Your task to perform on an android device: turn off translation in the chrome app Image 0: 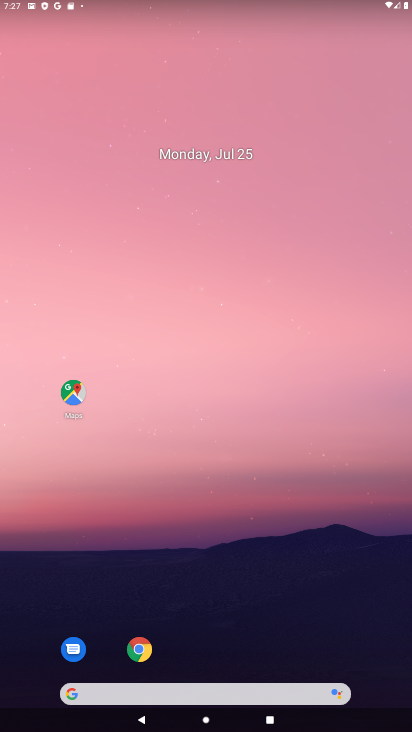
Step 0: click (138, 643)
Your task to perform on an android device: turn off translation in the chrome app Image 1: 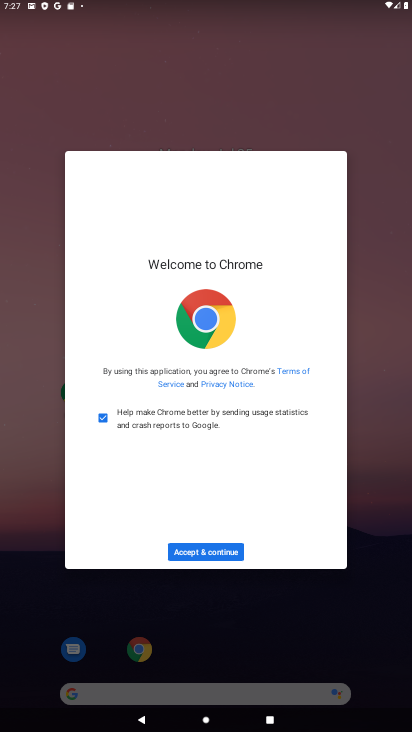
Step 1: click (221, 557)
Your task to perform on an android device: turn off translation in the chrome app Image 2: 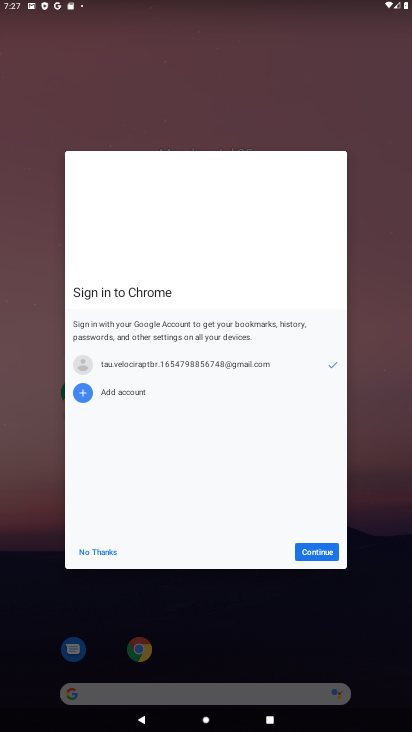
Step 2: click (316, 557)
Your task to perform on an android device: turn off translation in the chrome app Image 3: 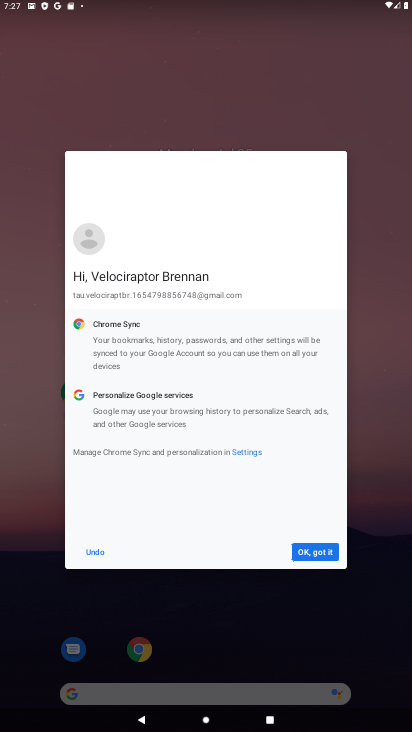
Step 3: click (328, 562)
Your task to perform on an android device: turn off translation in the chrome app Image 4: 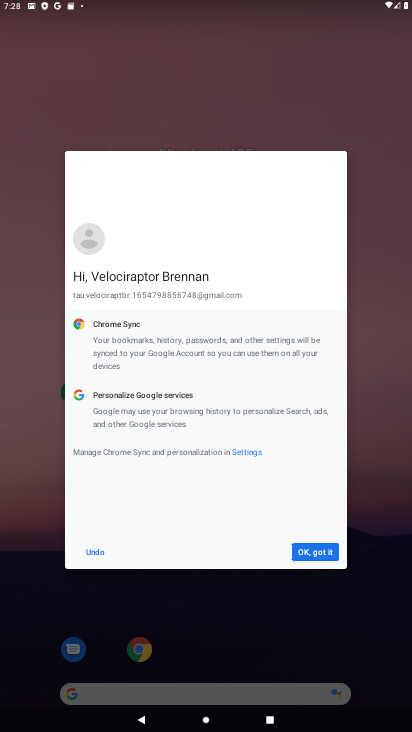
Step 4: click (328, 562)
Your task to perform on an android device: turn off translation in the chrome app Image 5: 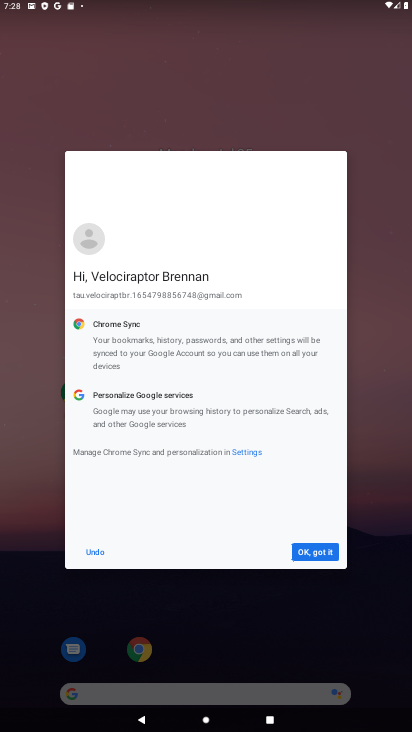
Step 5: click (325, 544)
Your task to perform on an android device: turn off translation in the chrome app Image 6: 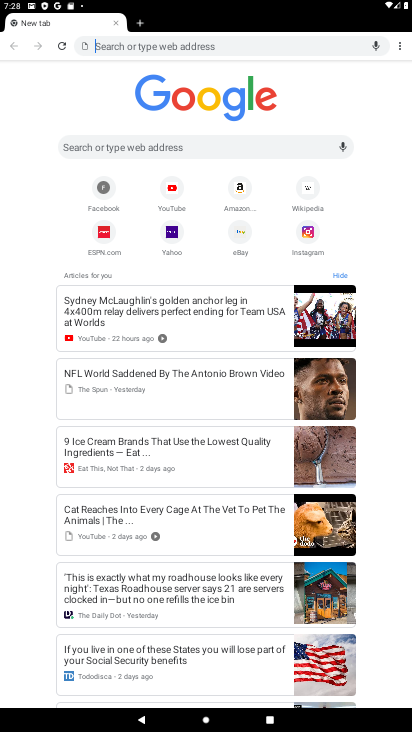
Step 6: click (397, 42)
Your task to perform on an android device: turn off translation in the chrome app Image 7: 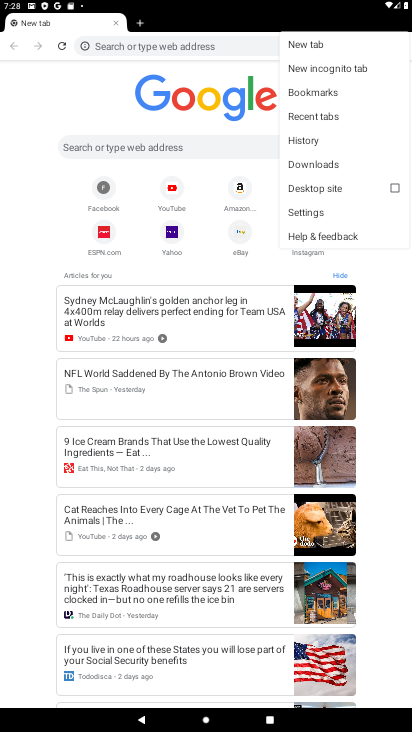
Step 7: click (300, 217)
Your task to perform on an android device: turn off translation in the chrome app Image 8: 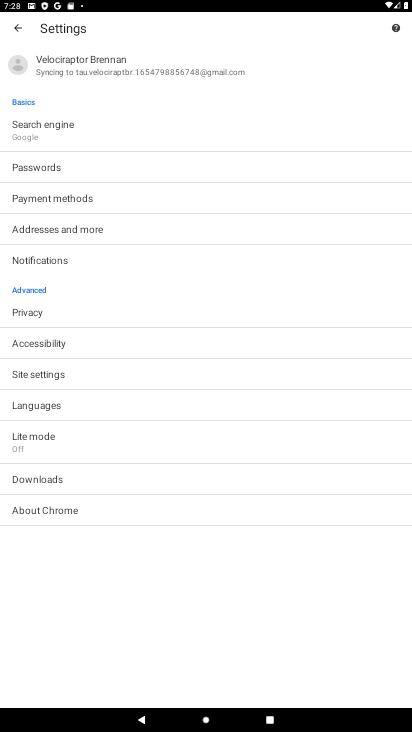
Step 8: click (30, 404)
Your task to perform on an android device: turn off translation in the chrome app Image 9: 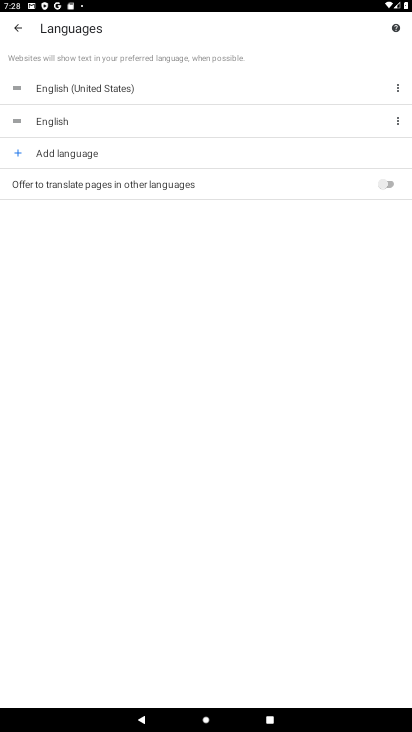
Step 9: task complete